Your task to perform on an android device: find photos in the google photos app Image 0: 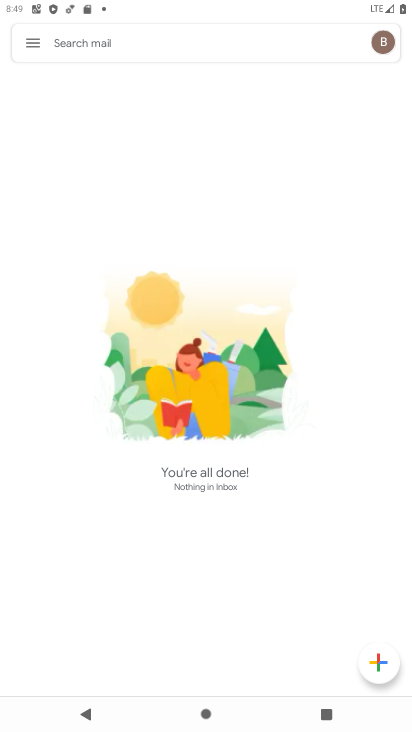
Step 0: press home button
Your task to perform on an android device: find photos in the google photos app Image 1: 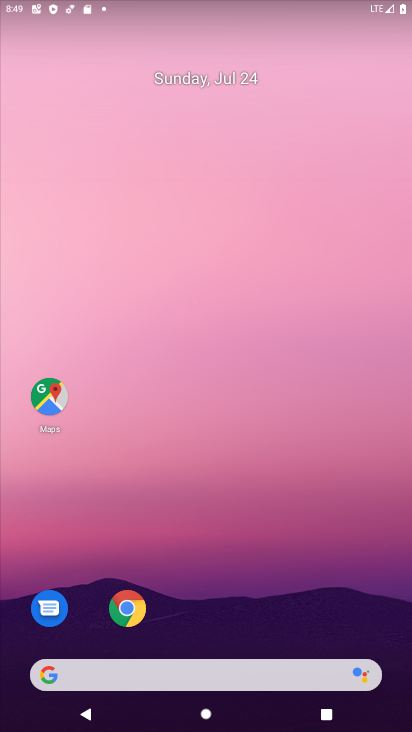
Step 1: drag from (223, 648) to (248, 5)
Your task to perform on an android device: find photos in the google photos app Image 2: 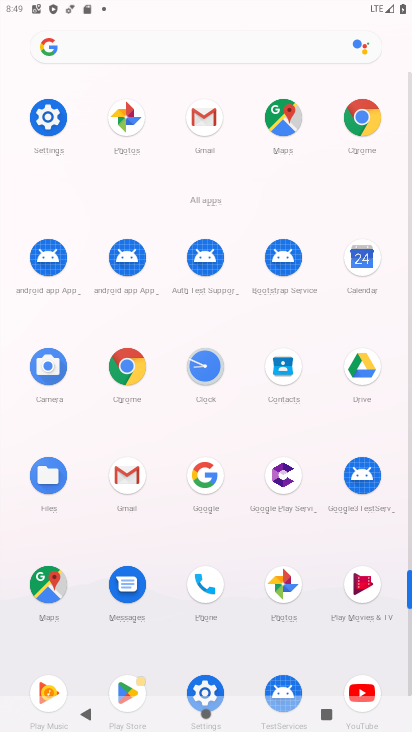
Step 2: click (278, 579)
Your task to perform on an android device: find photos in the google photos app Image 3: 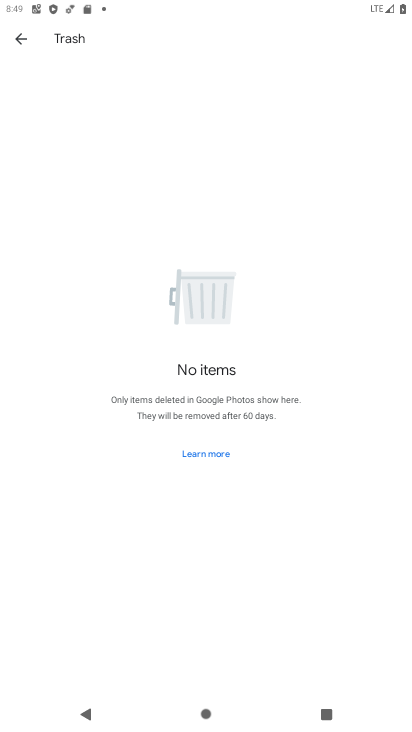
Step 3: click (25, 38)
Your task to perform on an android device: find photos in the google photos app Image 4: 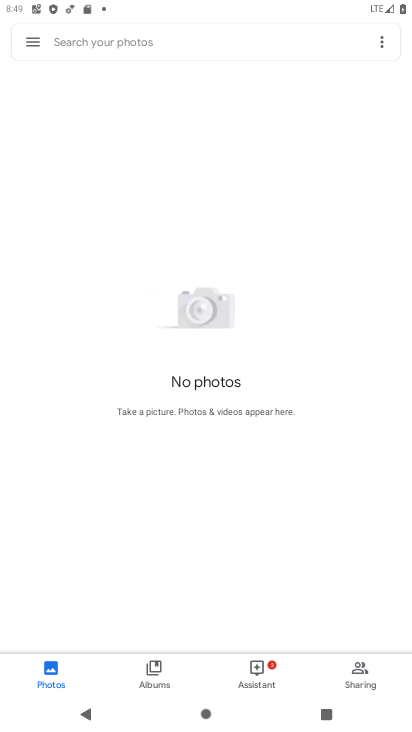
Step 4: task complete